Your task to perform on an android device: open a new tab in the chrome app Image 0: 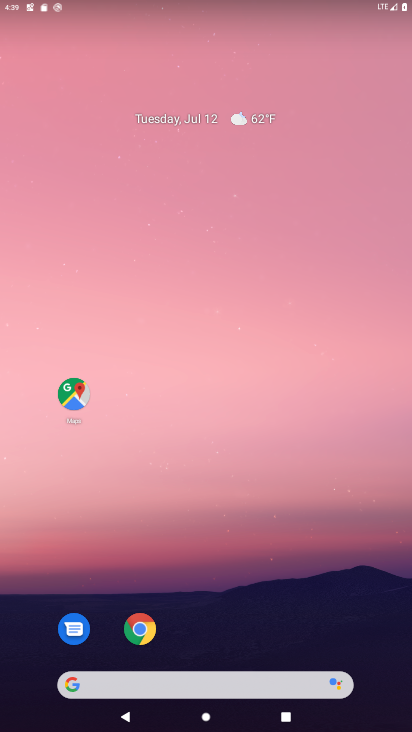
Step 0: drag from (283, 629) to (286, 23)
Your task to perform on an android device: open a new tab in the chrome app Image 1: 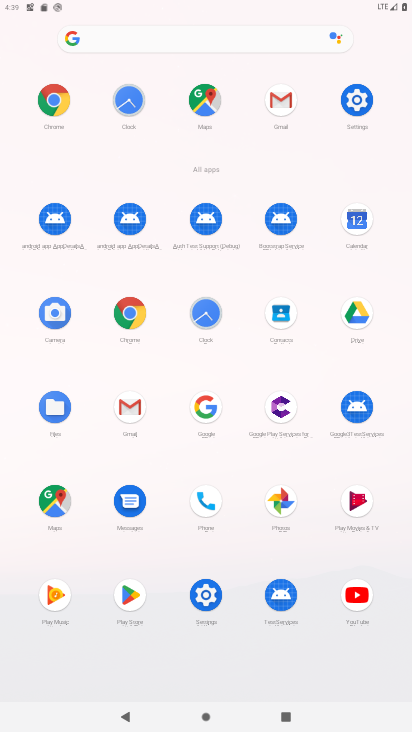
Step 1: click (47, 109)
Your task to perform on an android device: open a new tab in the chrome app Image 2: 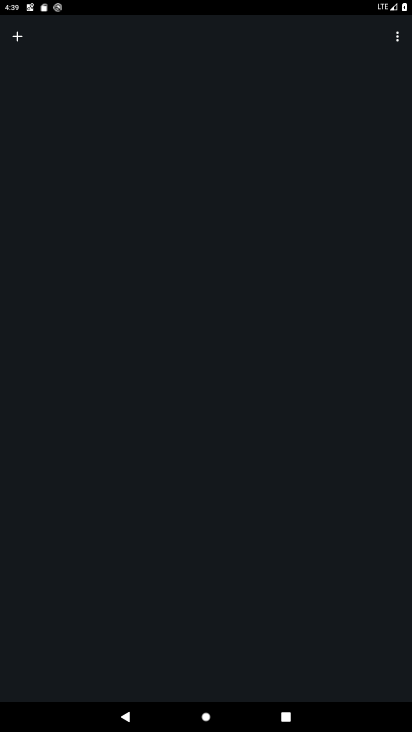
Step 2: press back button
Your task to perform on an android device: open a new tab in the chrome app Image 3: 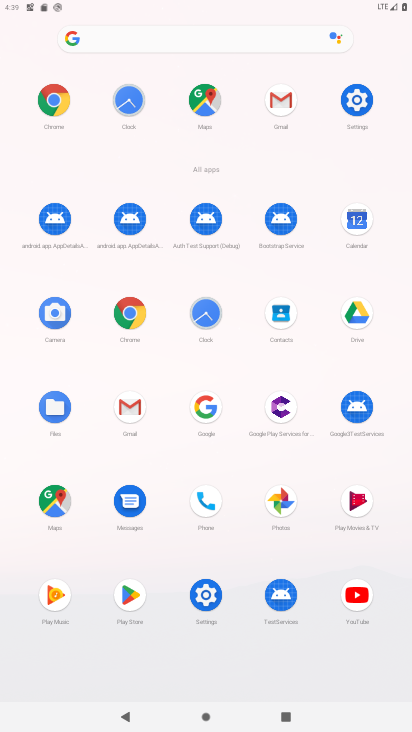
Step 3: click (130, 313)
Your task to perform on an android device: open a new tab in the chrome app Image 4: 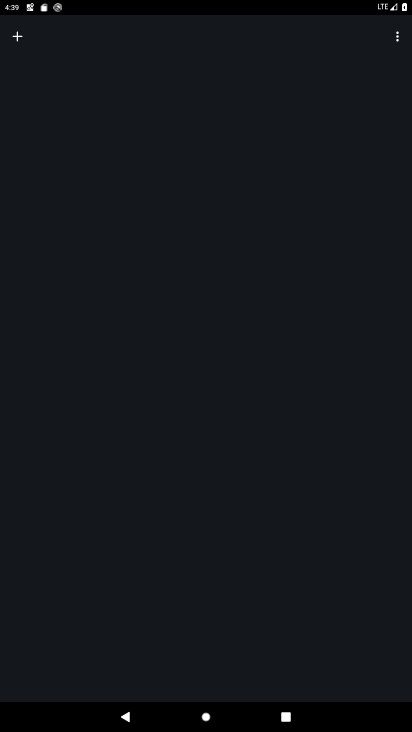
Step 4: click (10, 39)
Your task to perform on an android device: open a new tab in the chrome app Image 5: 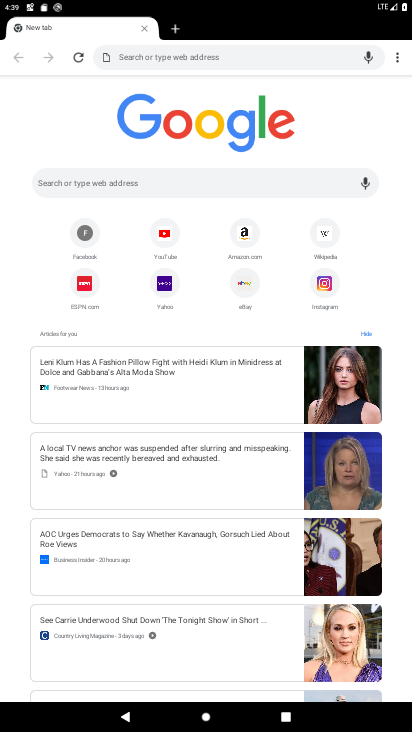
Step 5: task complete